Your task to perform on an android device: Add usb-a to usb-b to the cart on ebay, then select checkout. Image 0: 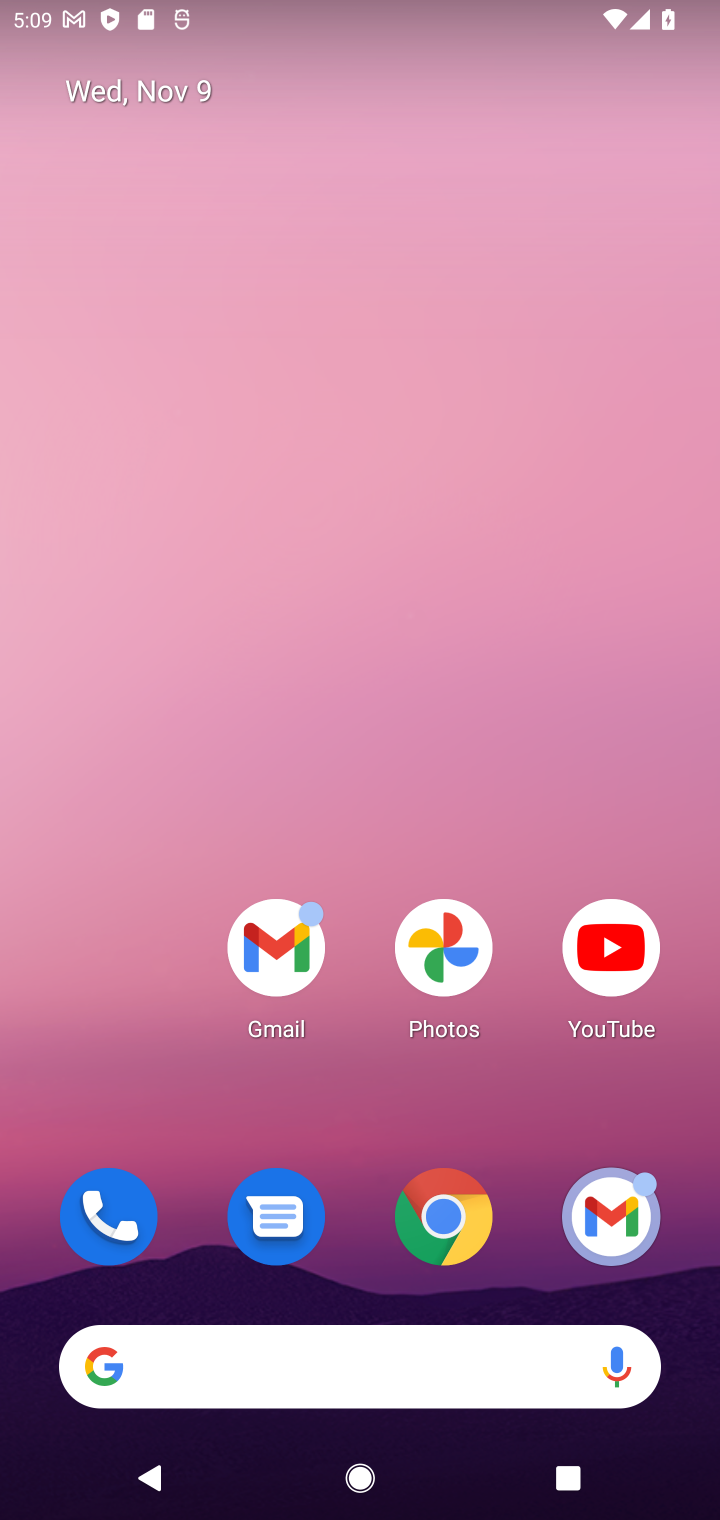
Step 0: drag from (382, 779) to (342, 267)
Your task to perform on an android device: Add usb-a to usb-b to the cart on ebay, then select checkout. Image 1: 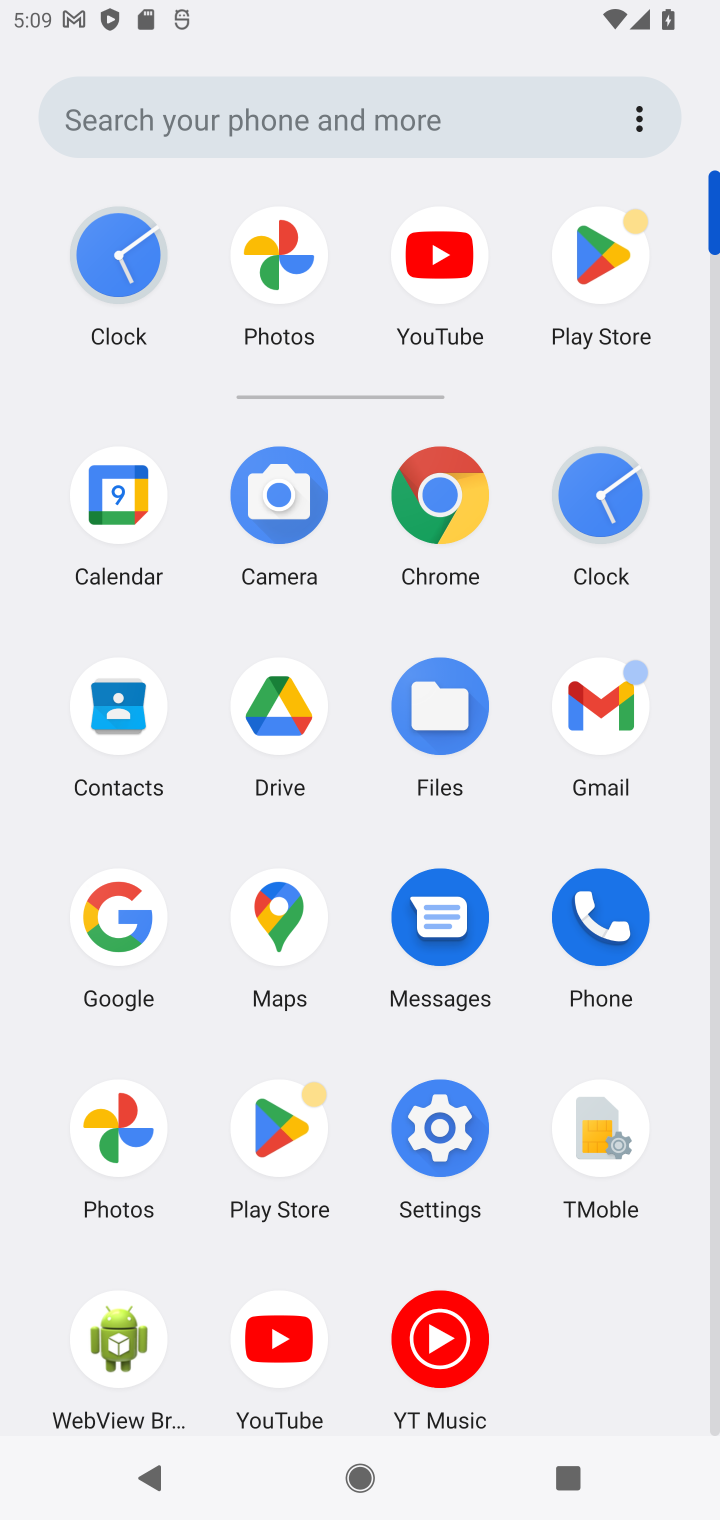
Step 1: click (439, 481)
Your task to perform on an android device: Add usb-a to usb-b to the cart on ebay, then select checkout. Image 2: 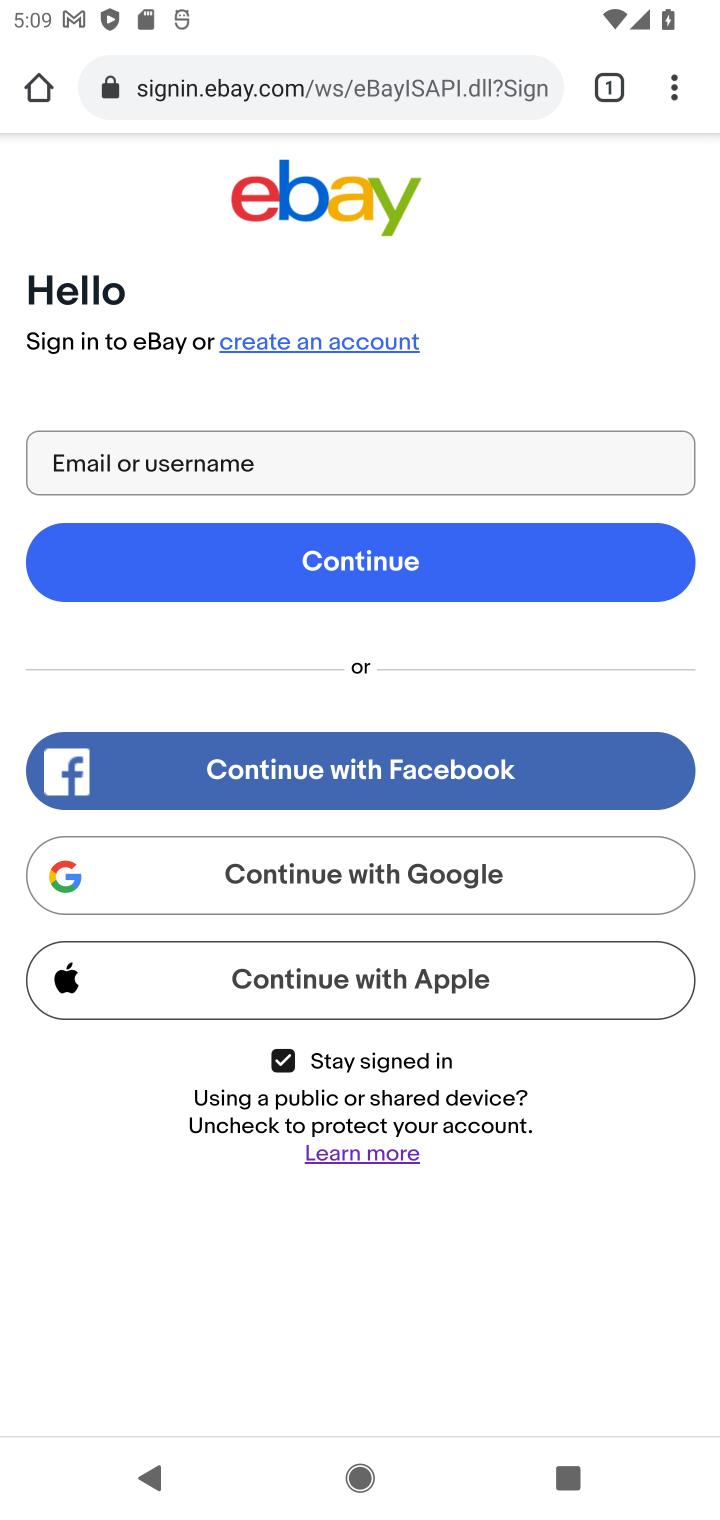
Step 2: click (399, 91)
Your task to perform on an android device: Add usb-a to usb-b to the cart on ebay, then select checkout. Image 3: 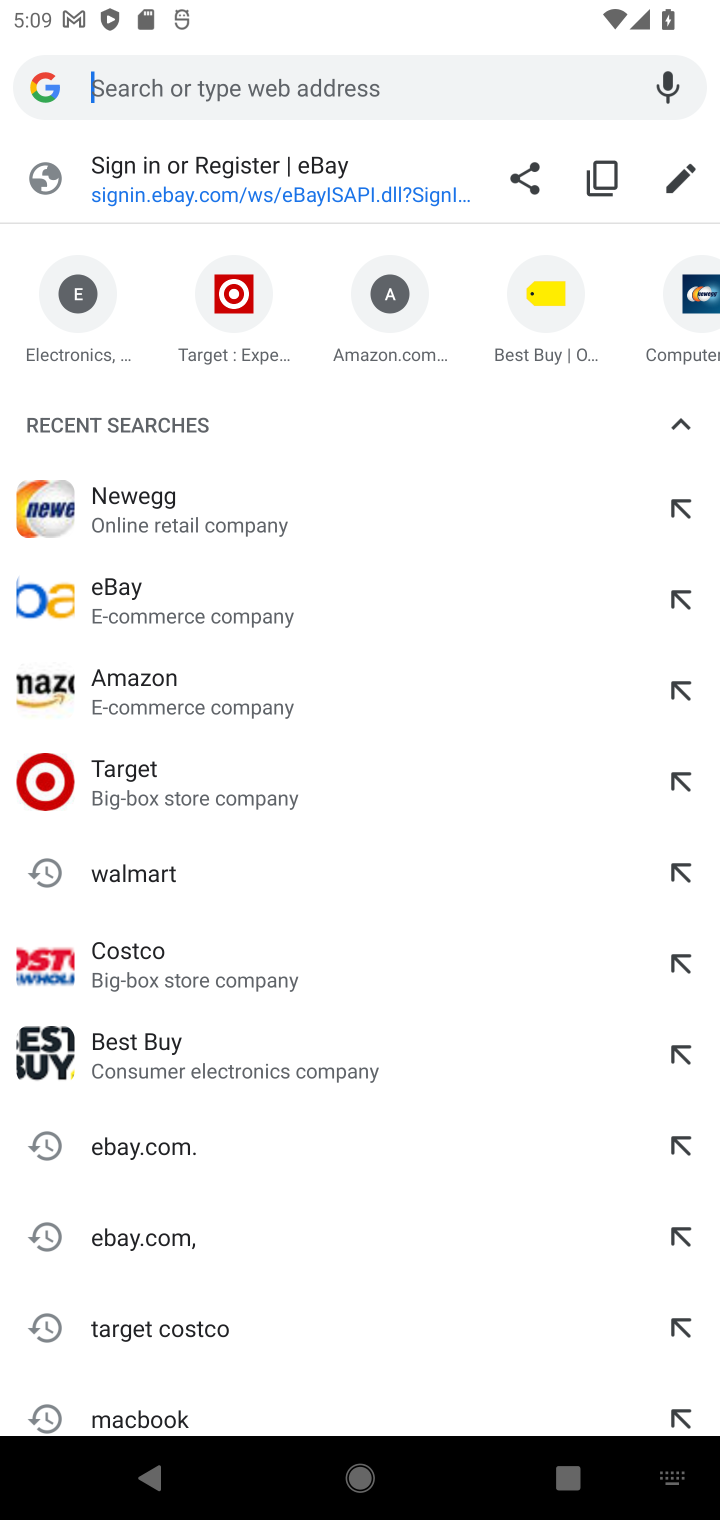
Step 3: type "ebay.com"
Your task to perform on an android device: Add usb-a to usb-b to the cart on ebay, then select checkout. Image 4: 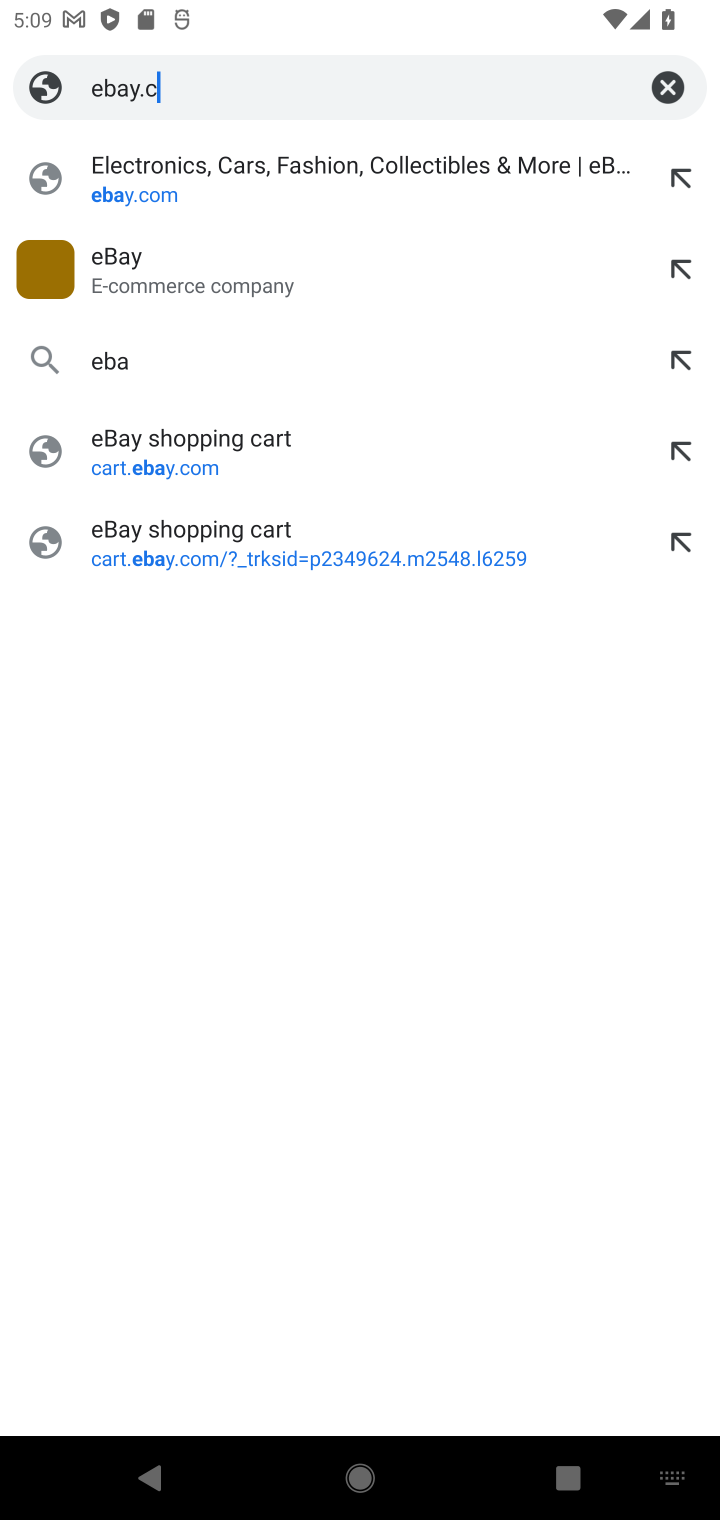
Step 4: press enter
Your task to perform on an android device: Add usb-a to usb-b to the cart on ebay, then select checkout. Image 5: 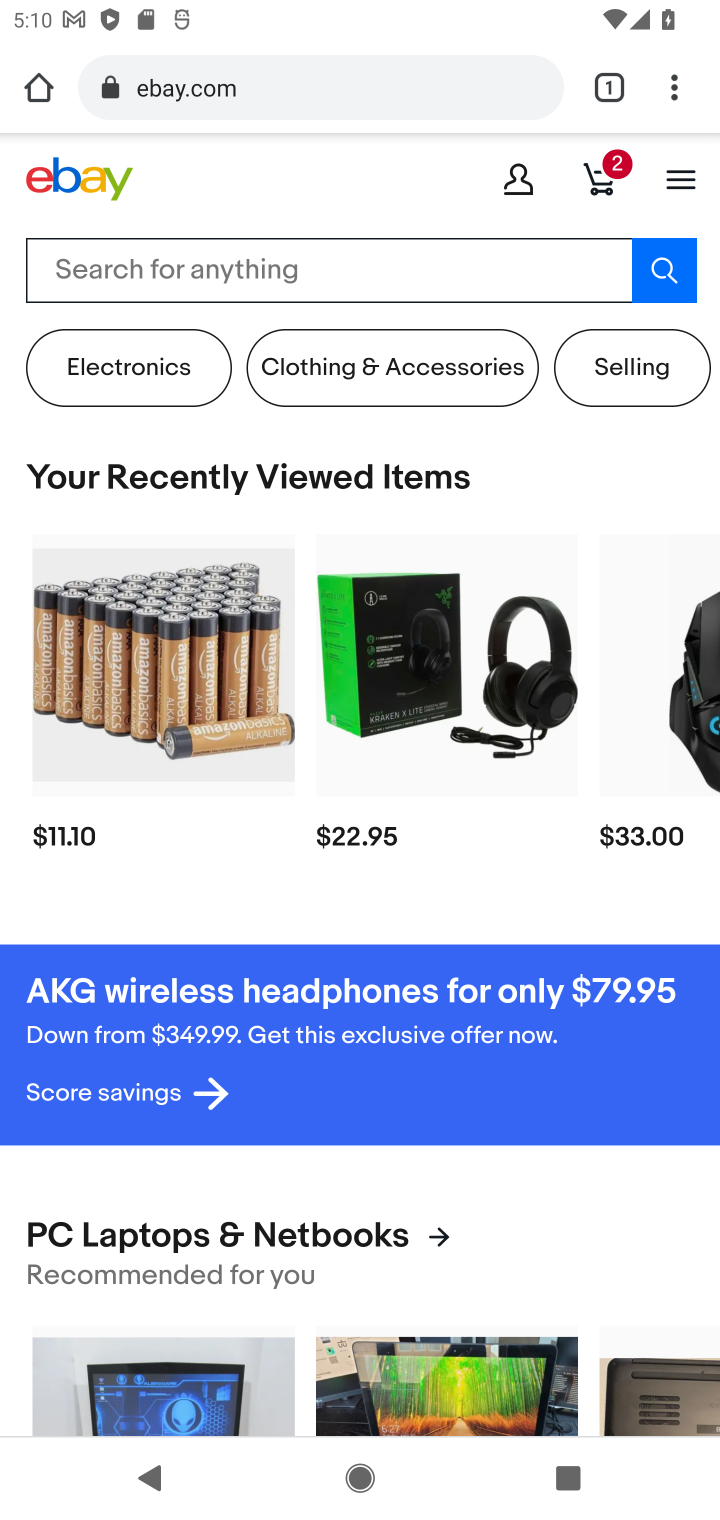
Step 5: click (429, 266)
Your task to perform on an android device: Add usb-a to usb-b to the cart on ebay, then select checkout. Image 6: 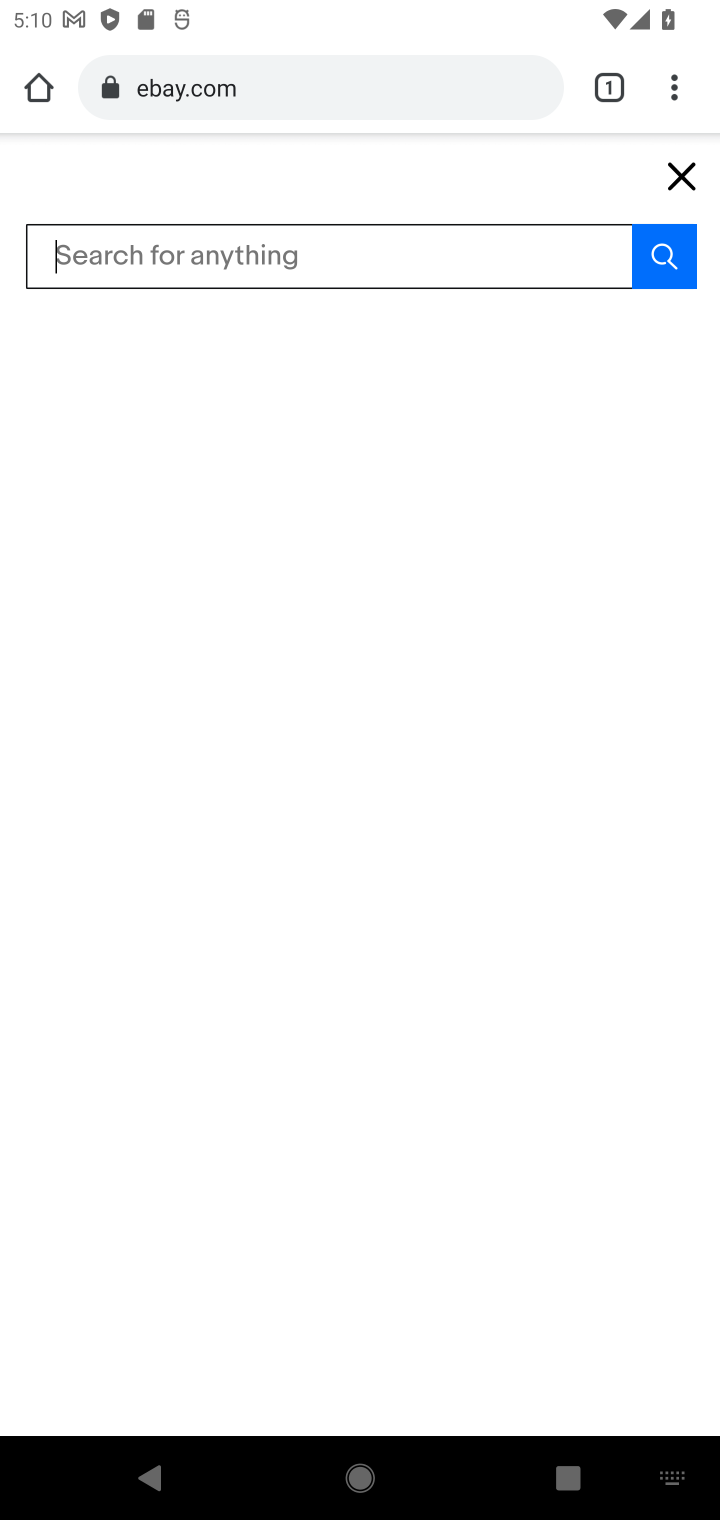
Step 6: type "usb-a to usb-b"
Your task to perform on an android device: Add usb-a to usb-b to the cart on ebay, then select checkout. Image 7: 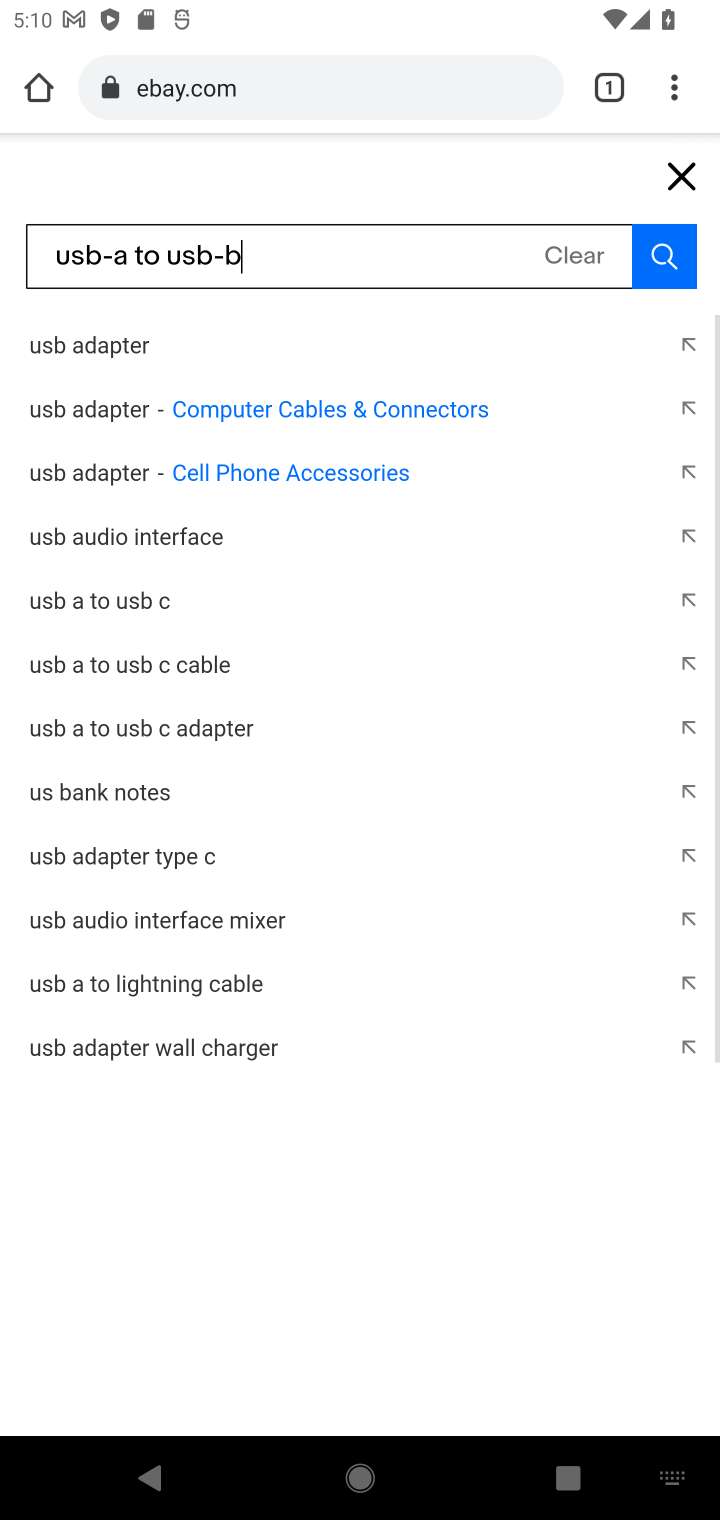
Step 7: press enter
Your task to perform on an android device: Add usb-a to usb-b to the cart on ebay, then select checkout. Image 8: 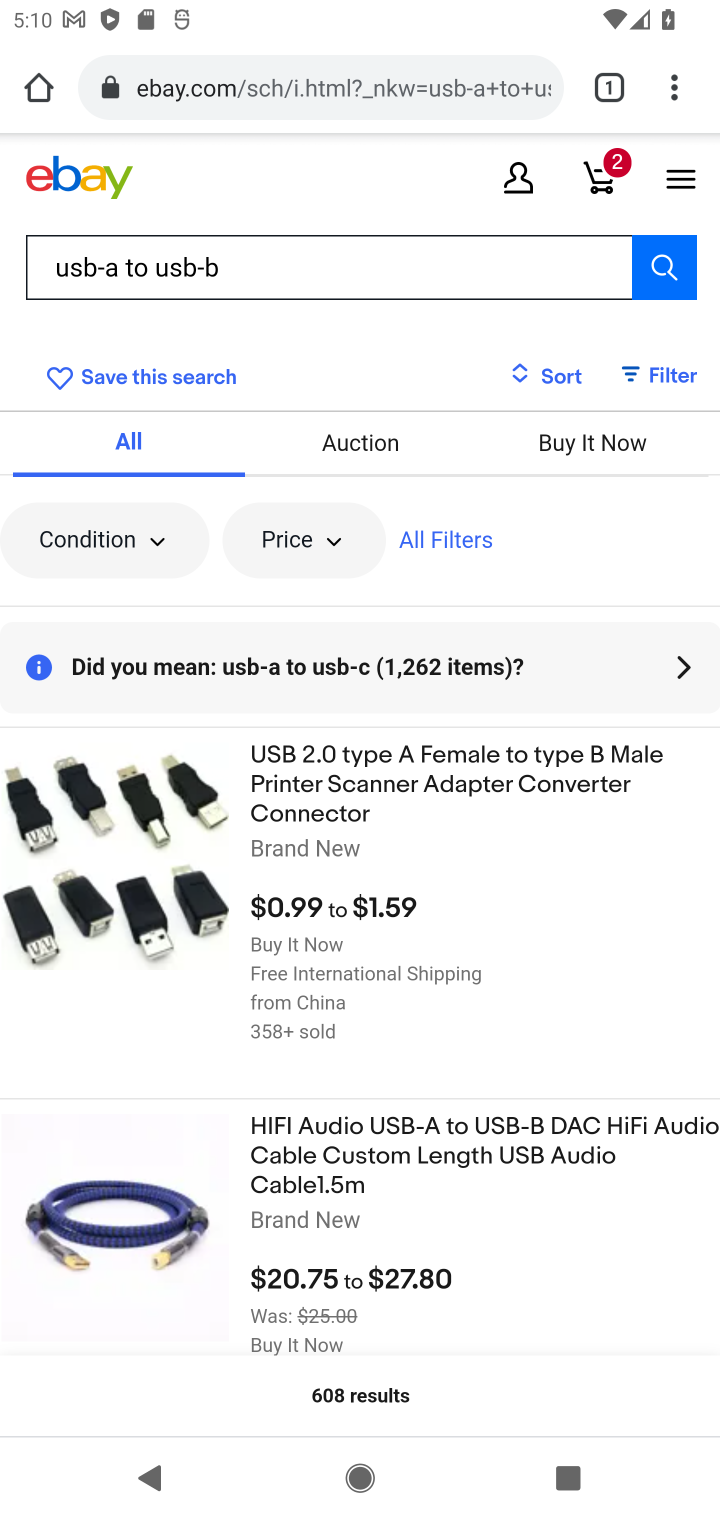
Step 8: click (94, 812)
Your task to perform on an android device: Add usb-a to usb-b to the cart on ebay, then select checkout. Image 9: 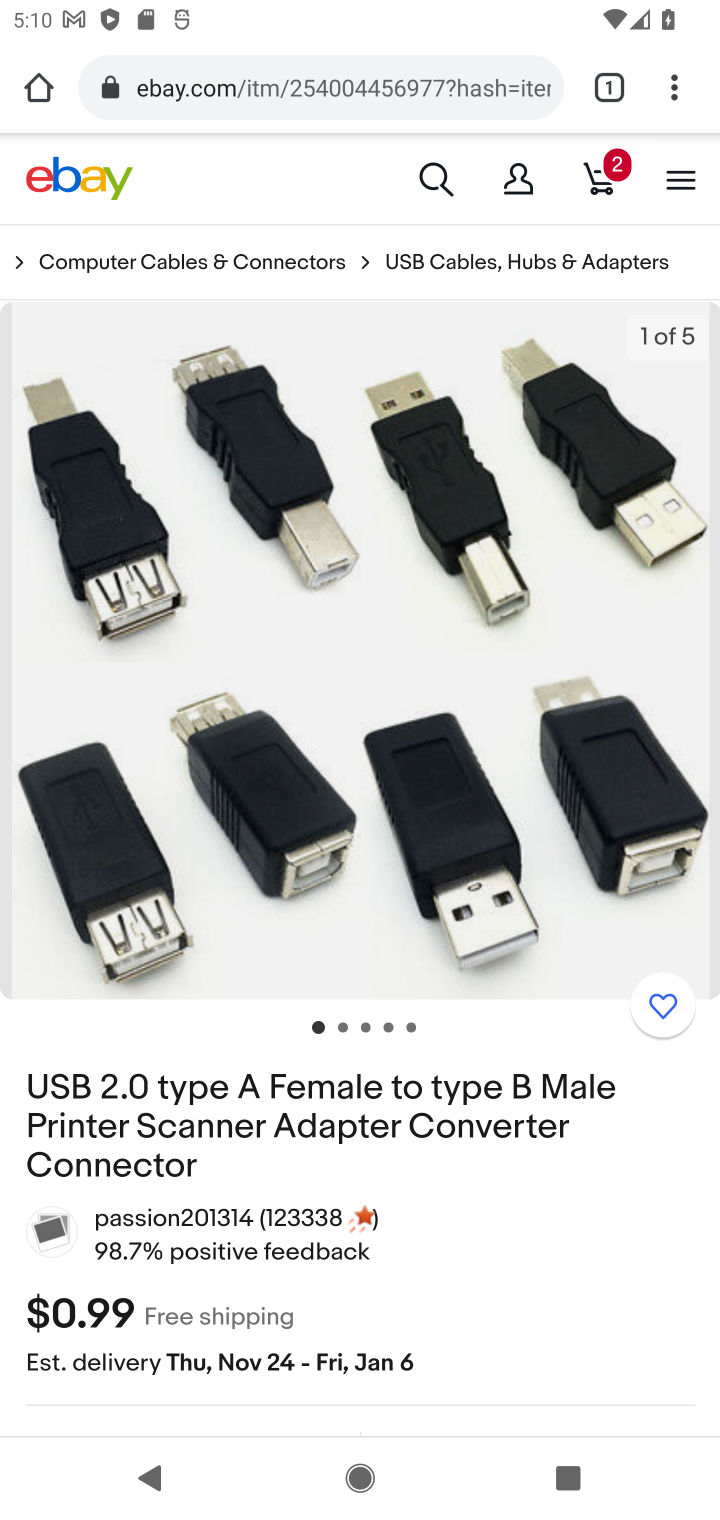
Step 9: drag from (450, 1284) to (479, 491)
Your task to perform on an android device: Add usb-a to usb-b to the cart on ebay, then select checkout. Image 10: 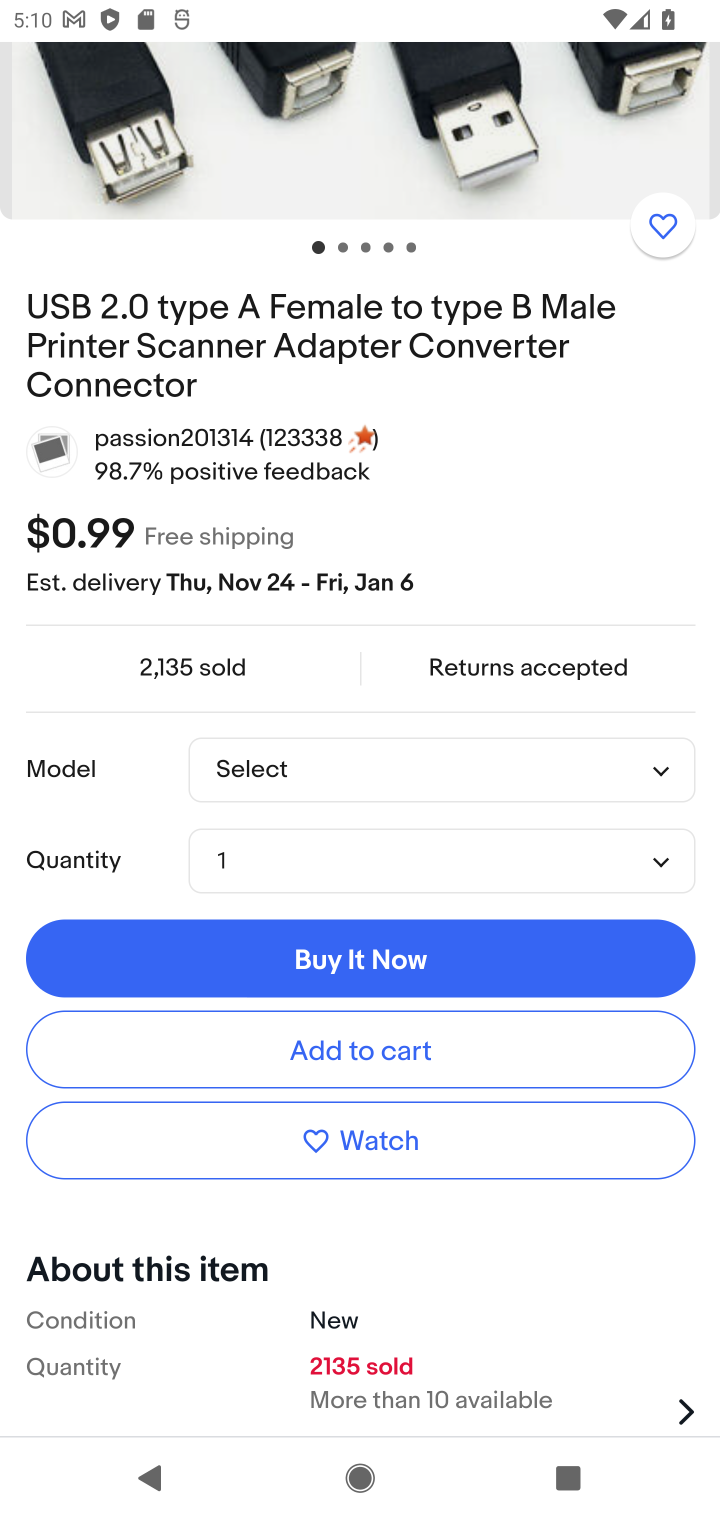
Step 10: click (498, 1050)
Your task to perform on an android device: Add usb-a to usb-b to the cart on ebay, then select checkout. Image 11: 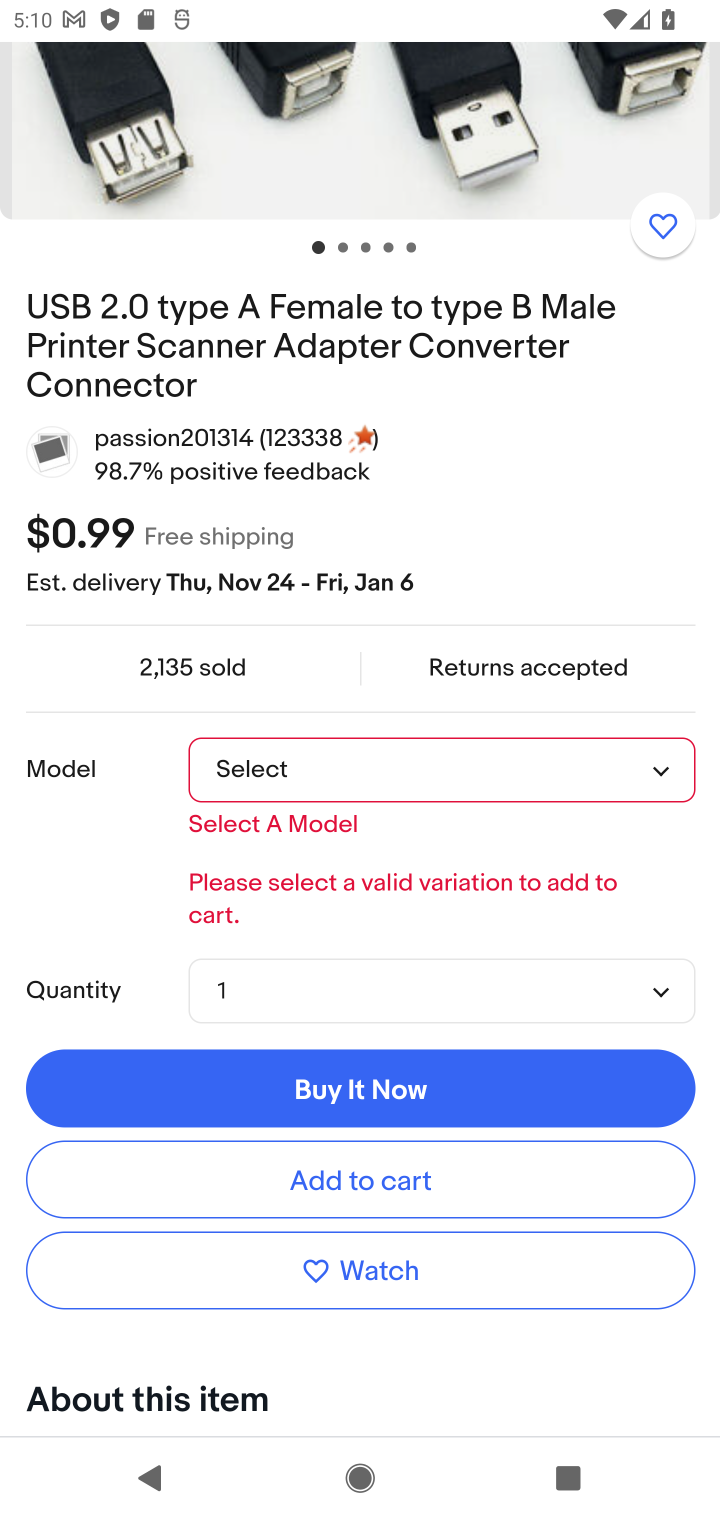
Step 11: click (589, 785)
Your task to perform on an android device: Add usb-a to usb-b to the cart on ebay, then select checkout. Image 12: 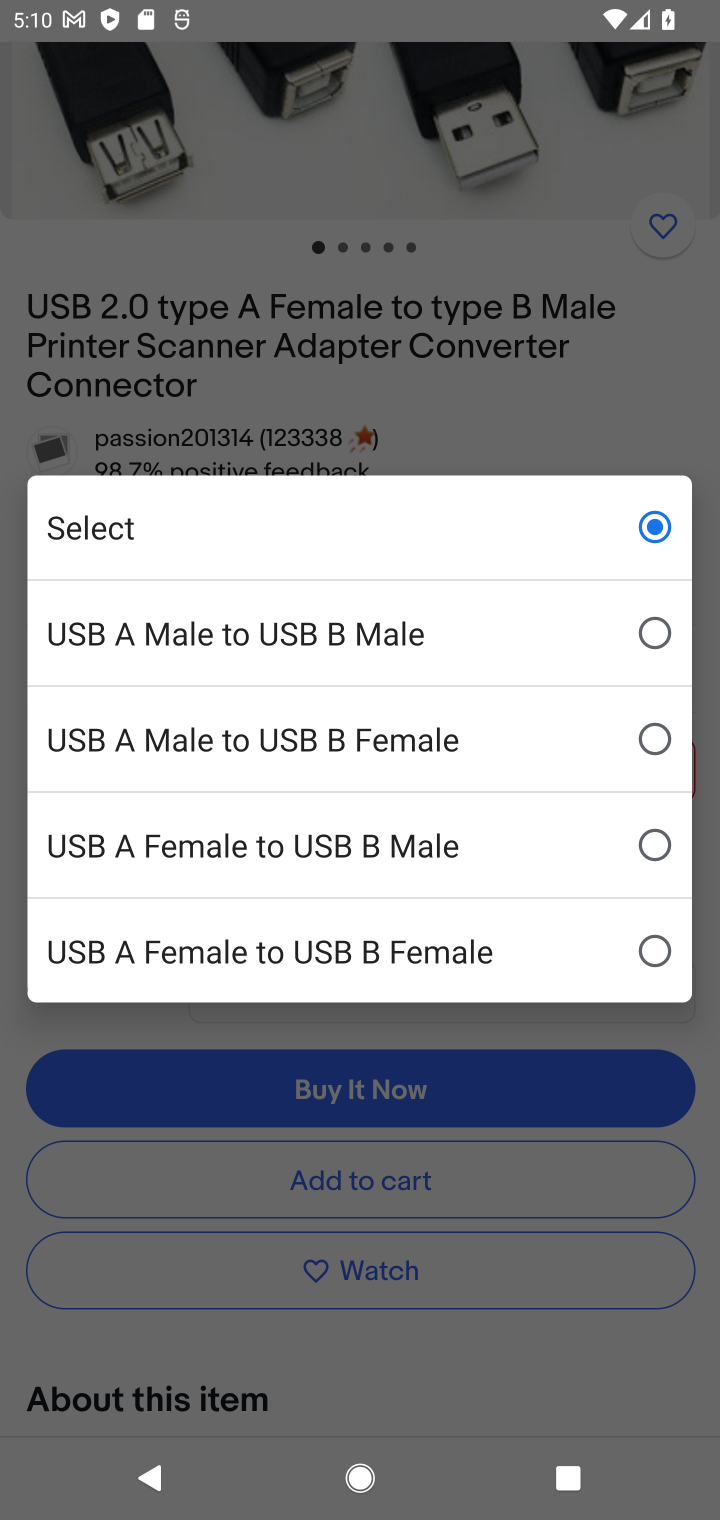
Step 12: click (600, 632)
Your task to perform on an android device: Add usb-a to usb-b to the cart on ebay, then select checkout. Image 13: 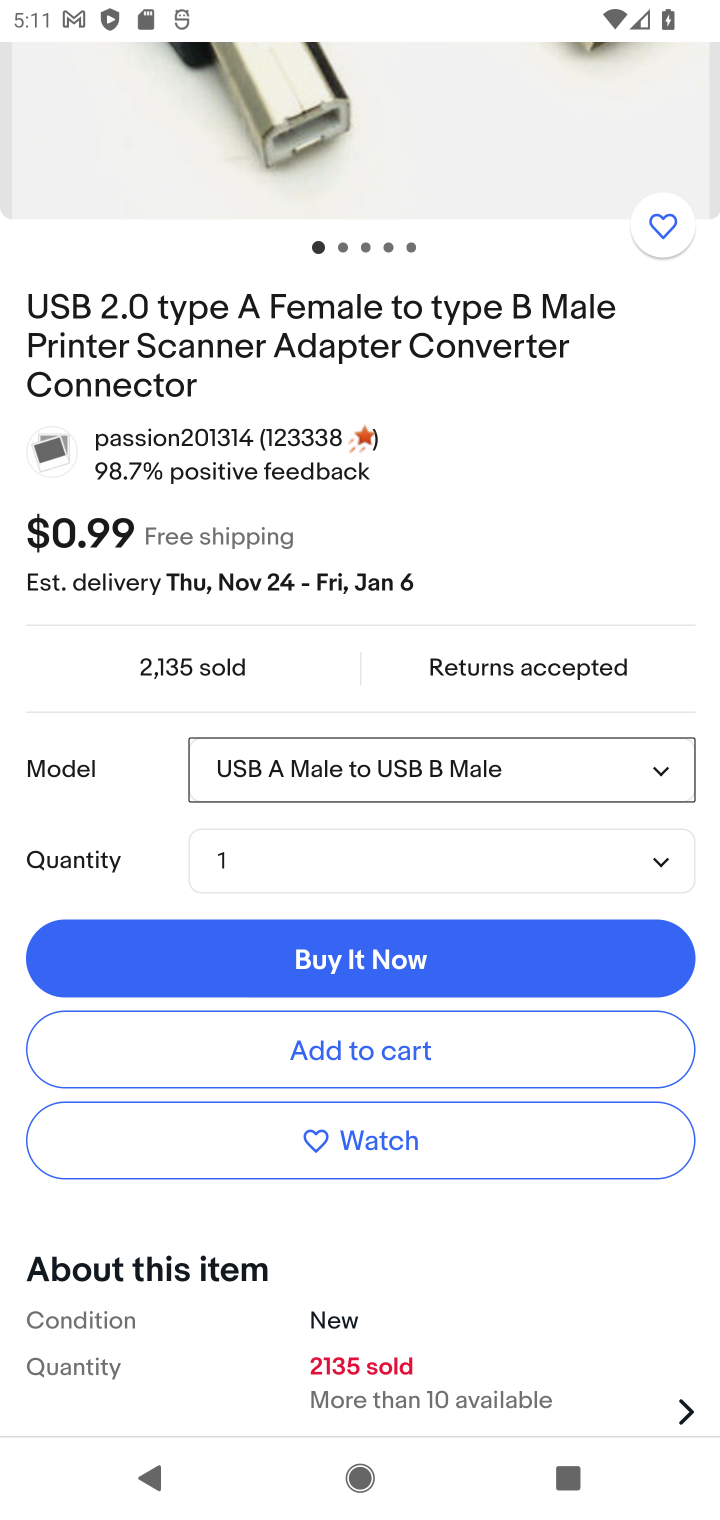
Step 13: click (546, 1059)
Your task to perform on an android device: Add usb-a to usb-b to the cart on ebay, then select checkout. Image 14: 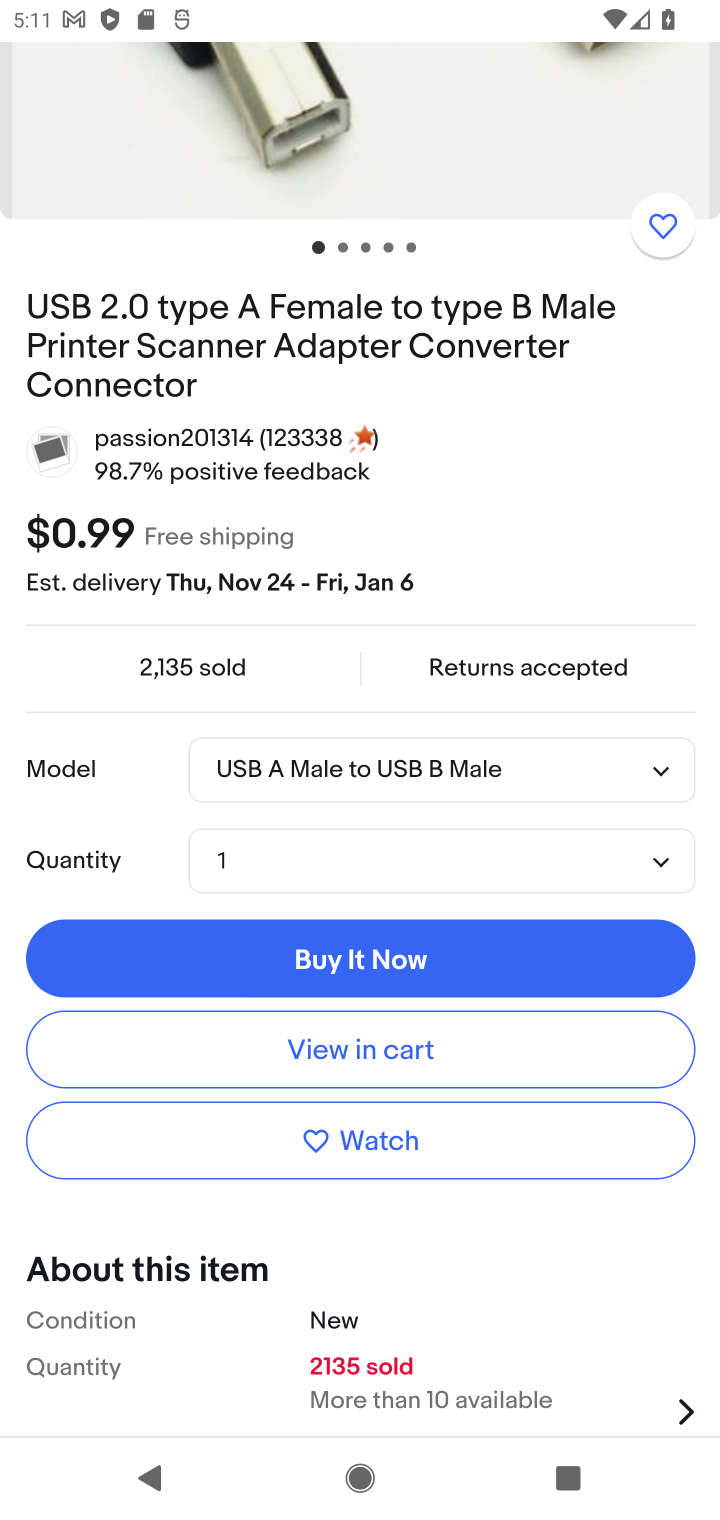
Step 14: click (546, 1059)
Your task to perform on an android device: Add usb-a to usb-b to the cart on ebay, then select checkout. Image 15: 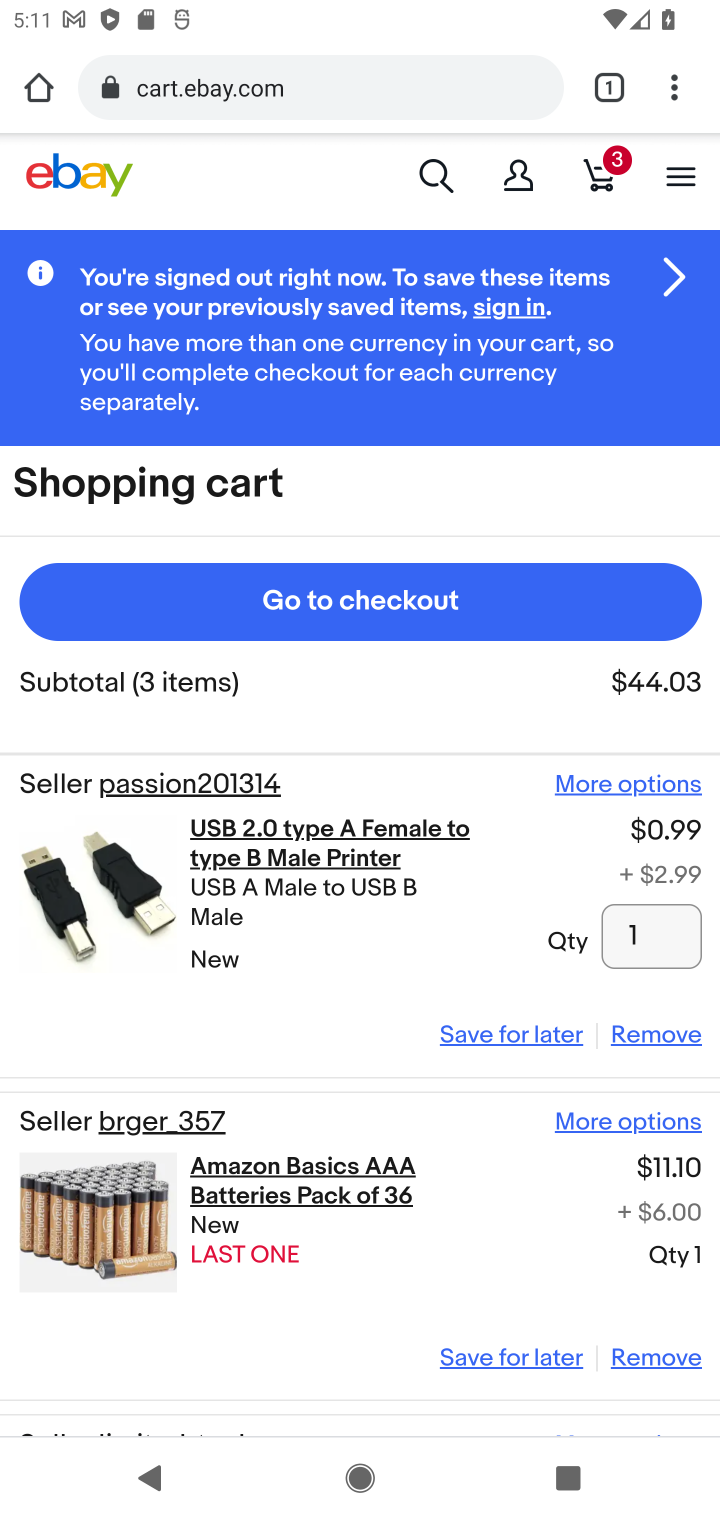
Step 15: click (467, 622)
Your task to perform on an android device: Add usb-a to usb-b to the cart on ebay, then select checkout. Image 16: 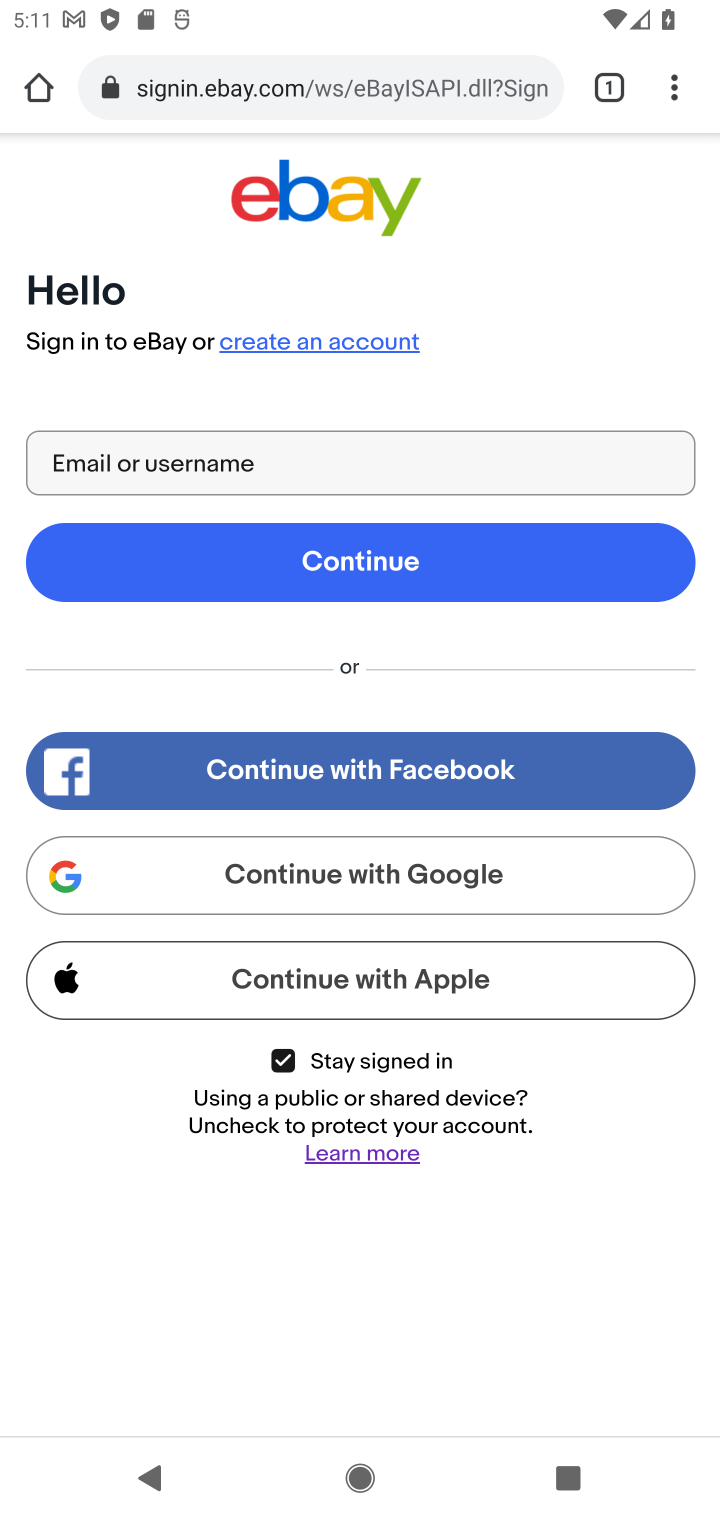
Step 16: task complete